Your task to perform on an android device: Go to Android settings Image 0: 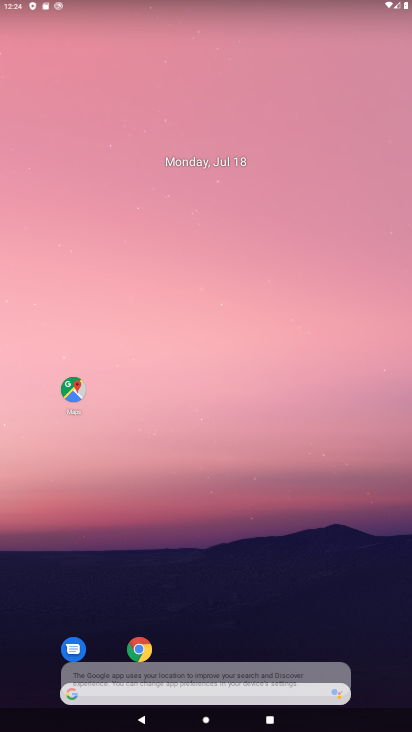
Step 0: drag from (284, 645) to (252, 178)
Your task to perform on an android device: Go to Android settings Image 1: 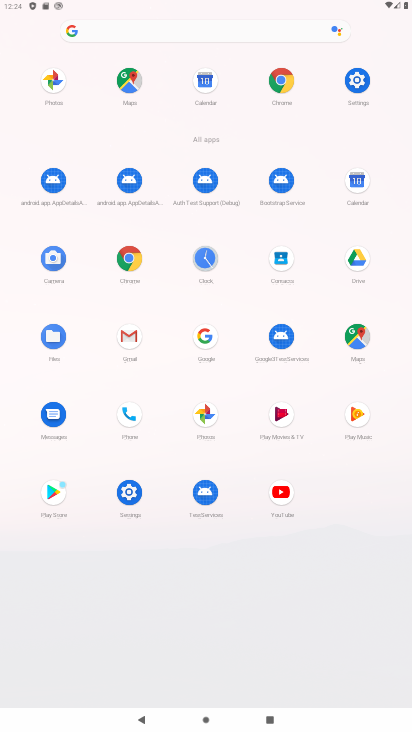
Step 1: click (355, 92)
Your task to perform on an android device: Go to Android settings Image 2: 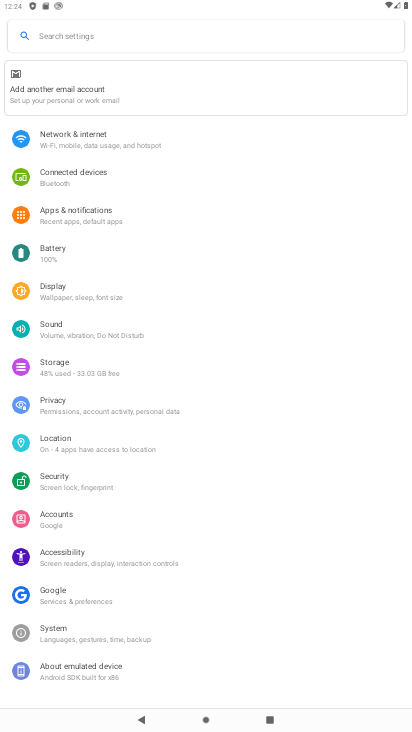
Step 2: task complete